Your task to perform on an android device: turn on location history Image 0: 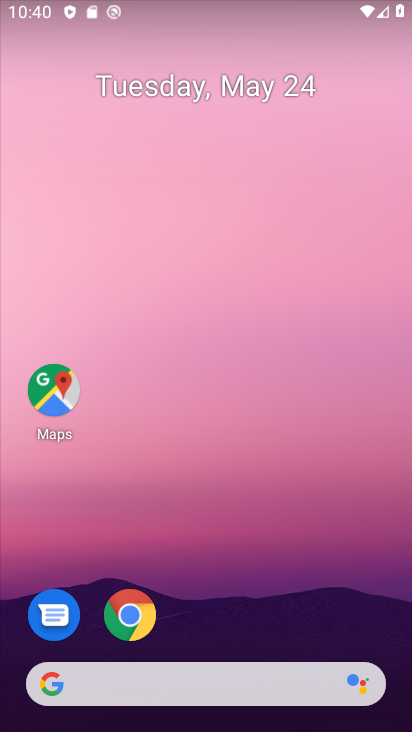
Step 0: press home button
Your task to perform on an android device: turn on location history Image 1: 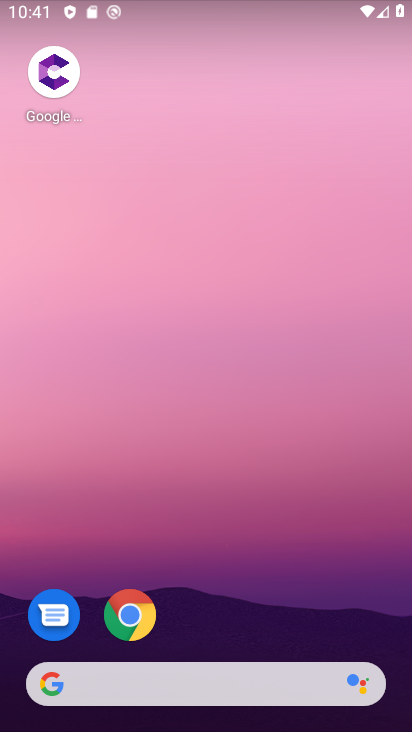
Step 1: drag from (275, 665) to (398, 145)
Your task to perform on an android device: turn on location history Image 2: 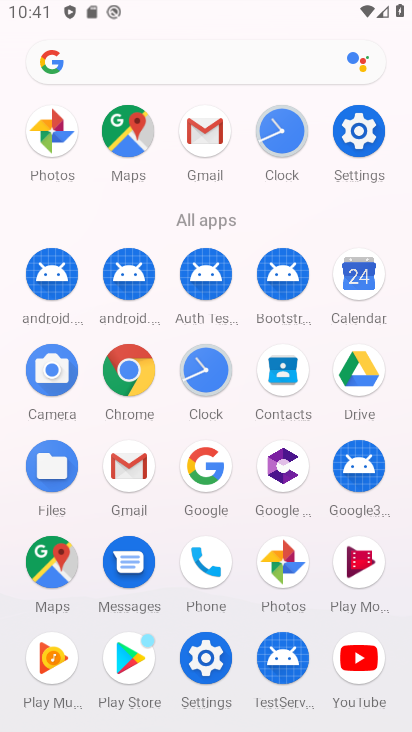
Step 2: click (361, 126)
Your task to perform on an android device: turn on location history Image 3: 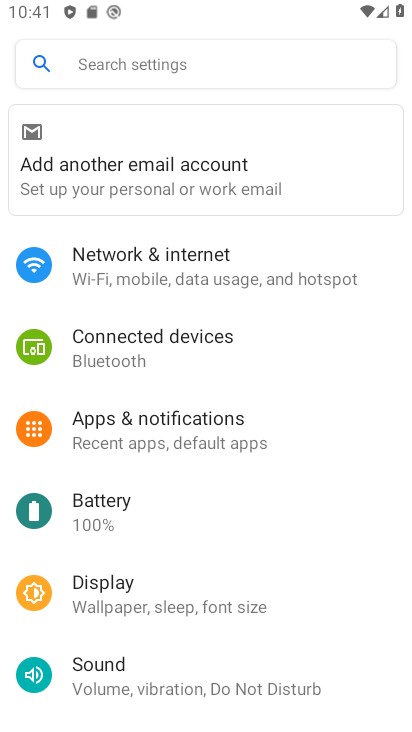
Step 3: click (221, 49)
Your task to perform on an android device: turn on location history Image 4: 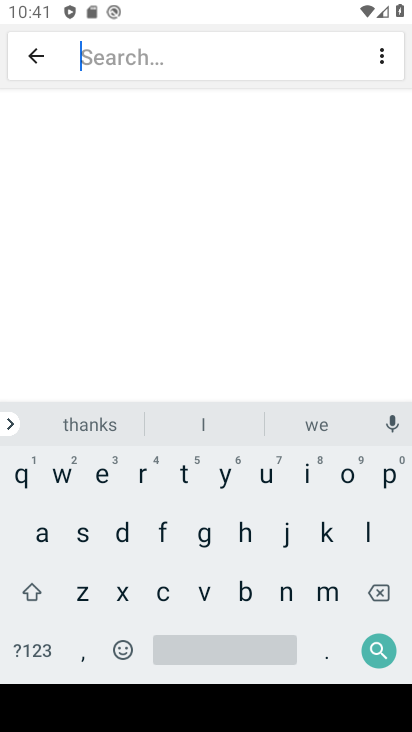
Step 4: click (370, 530)
Your task to perform on an android device: turn on location history Image 5: 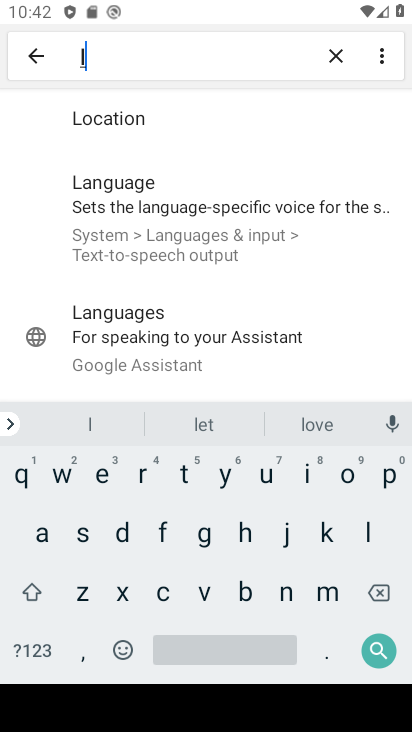
Step 5: click (346, 473)
Your task to perform on an android device: turn on location history Image 6: 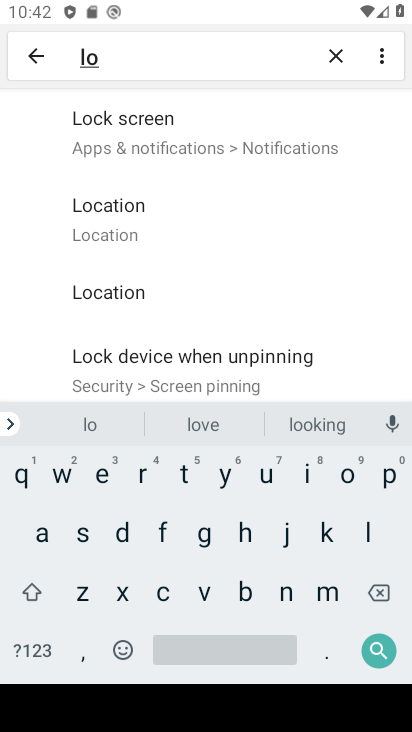
Step 6: click (179, 219)
Your task to perform on an android device: turn on location history Image 7: 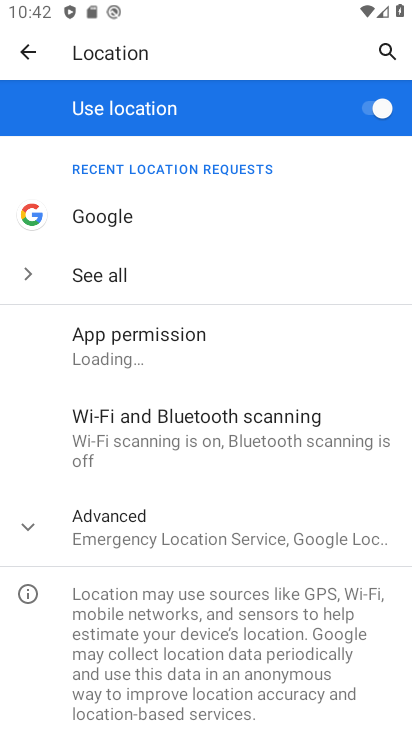
Step 7: click (20, 521)
Your task to perform on an android device: turn on location history Image 8: 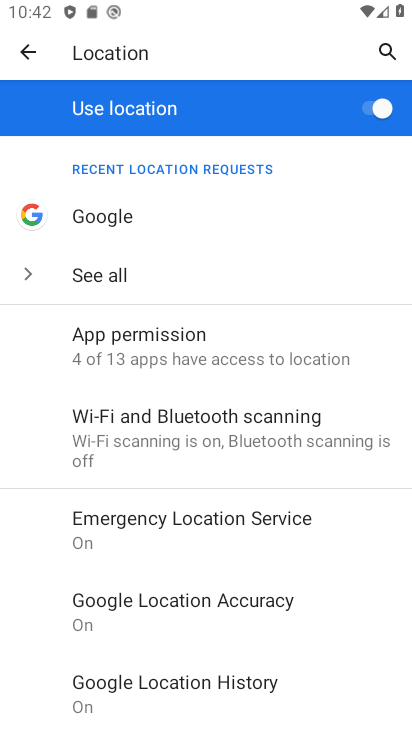
Step 8: click (176, 659)
Your task to perform on an android device: turn on location history Image 9: 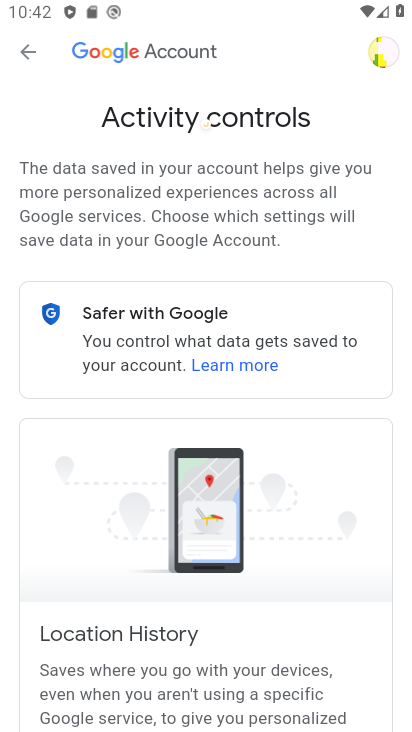
Step 9: drag from (189, 515) to (304, 97)
Your task to perform on an android device: turn on location history Image 10: 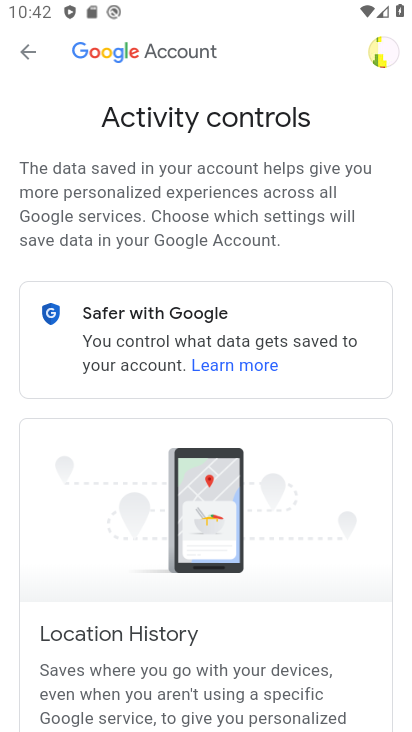
Step 10: drag from (132, 526) to (322, 6)
Your task to perform on an android device: turn on location history Image 11: 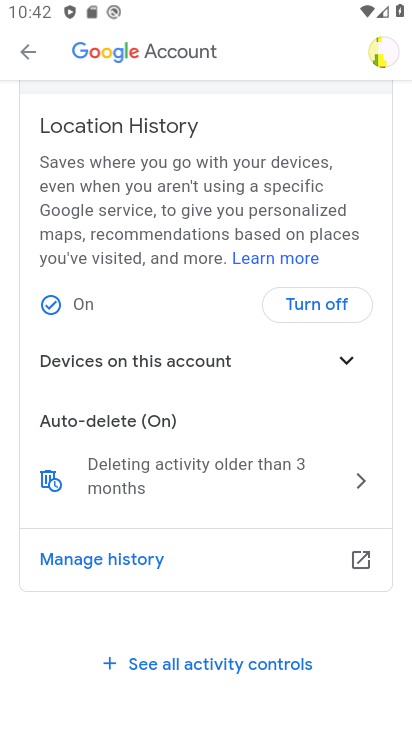
Step 11: click (65, 299)
Your task to perform on an android device: turn on location history Image 12: 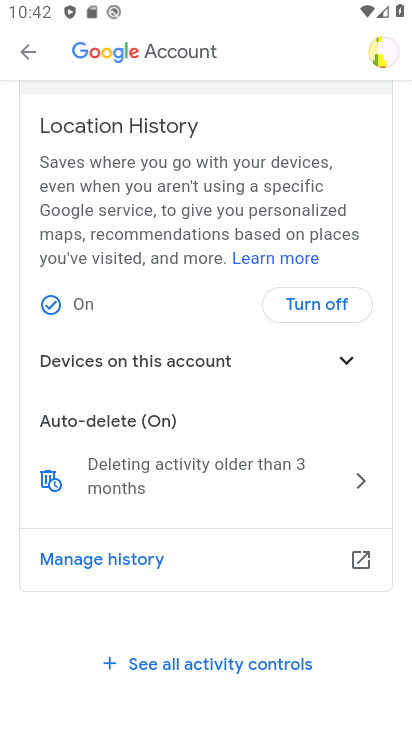
Step 12: task complete